Your task to perform on an android device: Go to Amazon Image 0: 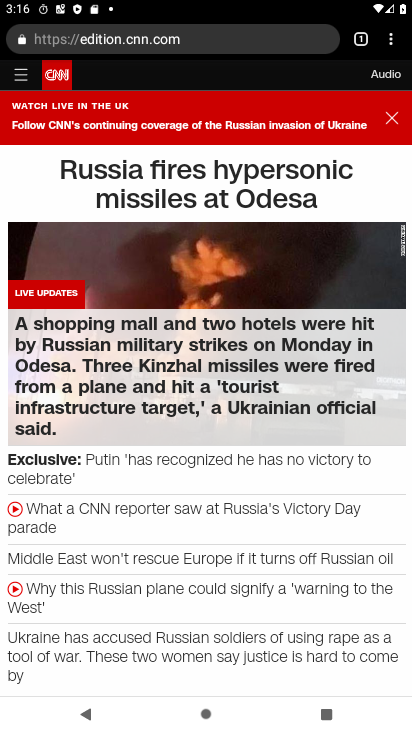
Step 0: press home button
Your task to perform on an android device: Go to Amazon Image 1: 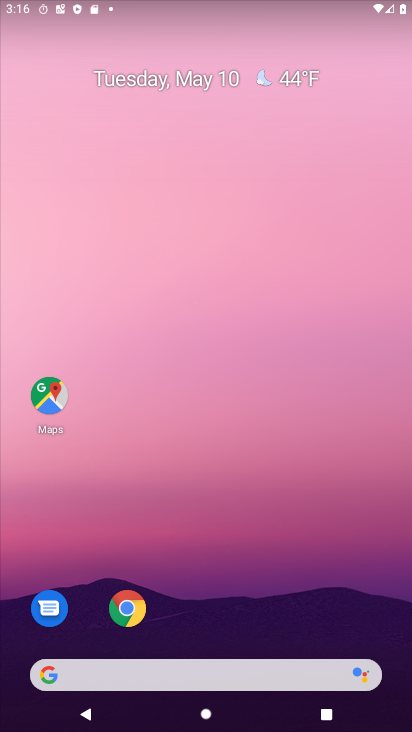
Step 1: click (130, 616)
Your task to perform on an android device: Go to Amazon Image 2: 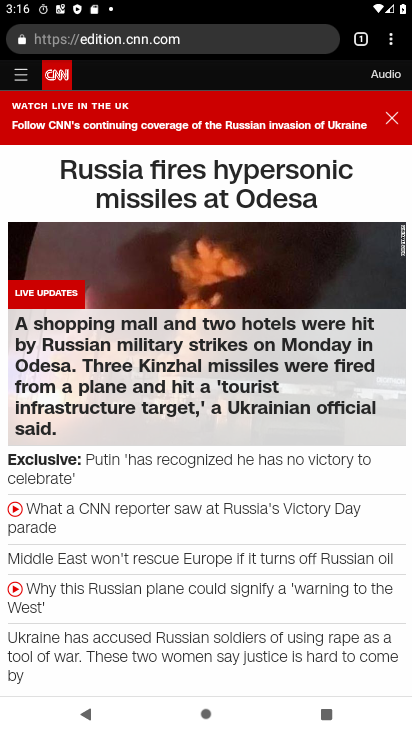
Step 2: click (123, 44)
Your task to perform on an android device: Go to Amazon Image 3: 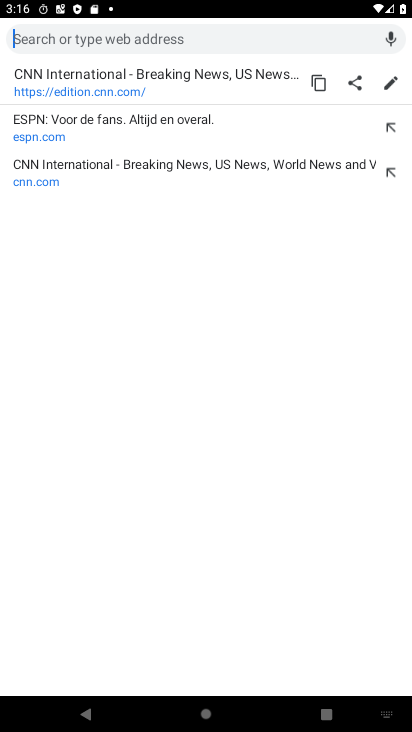
Step 3: type "amazon"
Your task to perform on an android device: Go to Amazon Image 4: 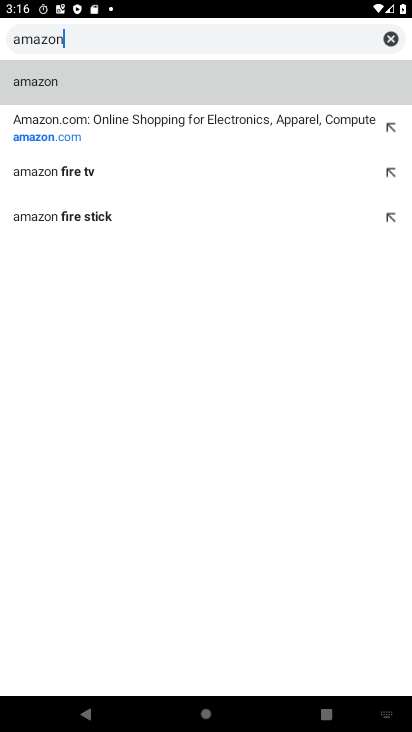
Step 4: click (42, 133)
Your task to perform on an android device: Go to Amazon Image 5: 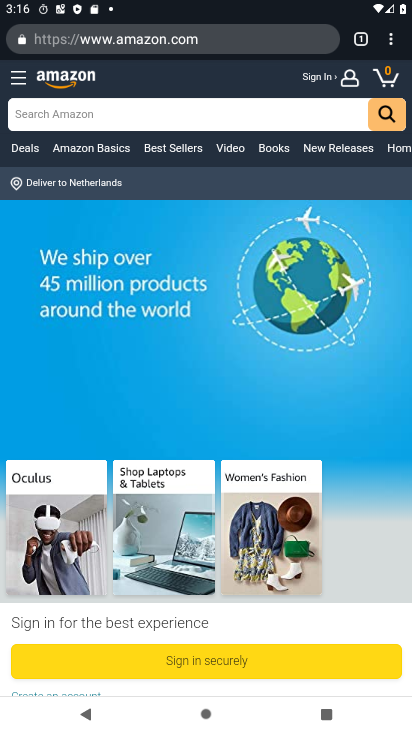
Step 5: task complete